Your task to perform on an android device: change the clock display to show seconds Image 0: 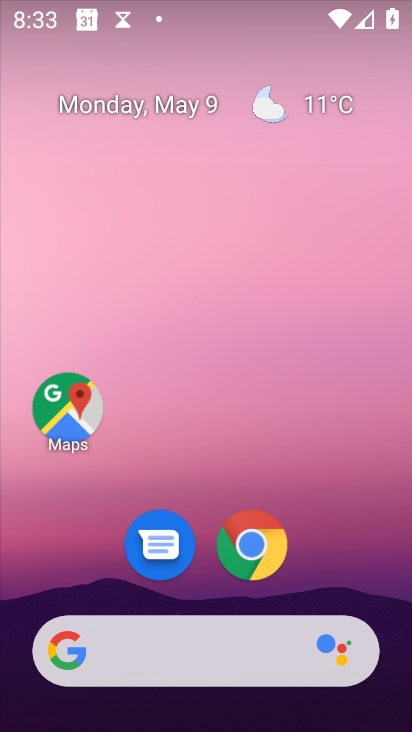
Step 0: drag from (214, 725) to (223, 152)
Your task to perform on an android device: change the clock display to show seconds Image 1: 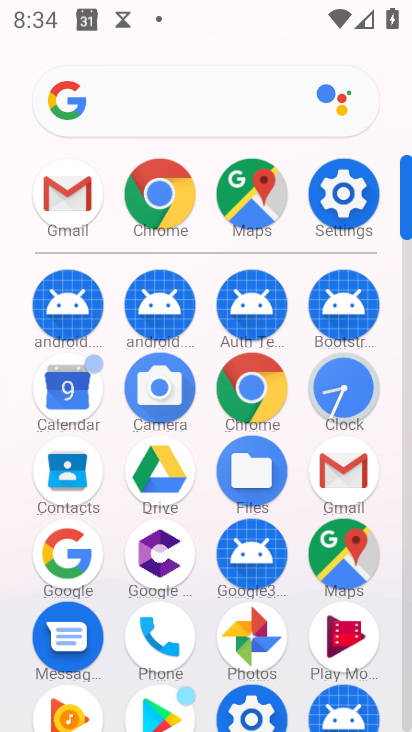
Step 1: click (349, 385)
Your task to perform on an android device: change the clock display to show seconds Image 2: 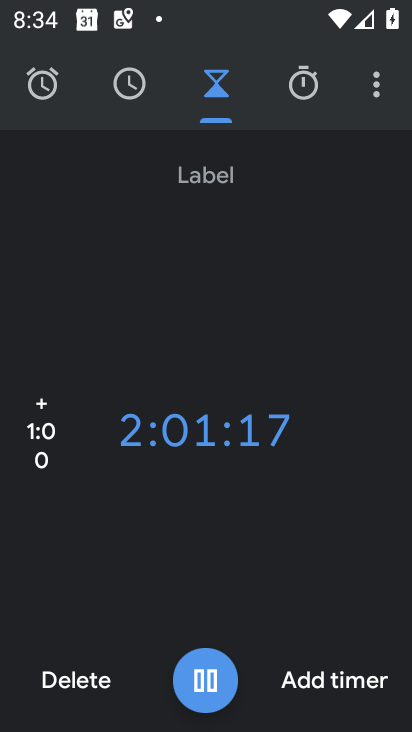
Step 2: click (375, 84)
Your task to perform on an android device: change the clock display to show seconds Image 3: 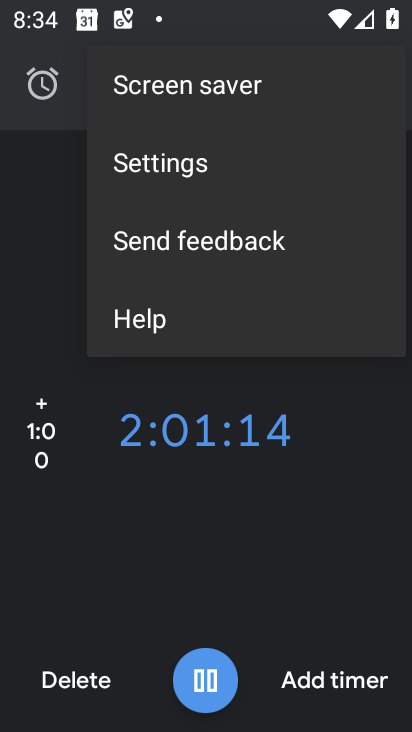
Step 3: click (177, 166)
Your task to perform on an android device: change the clock display to show seconds Image 4: 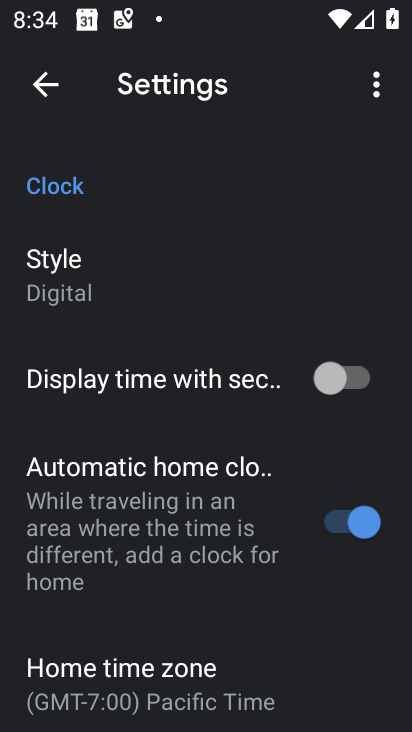
Step 4: click (353, 382)
Your task to perform on an android device: change the clock display to show seconds Image 5: 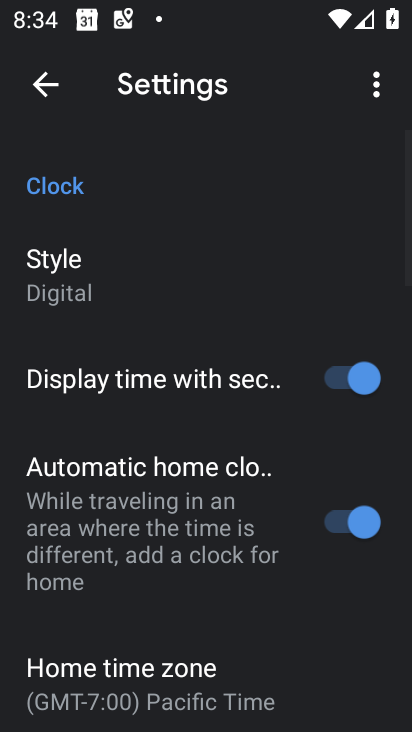
Step 5: task complete